Your task to perform on an android device: toggle javascript in the chrome app Image 0: 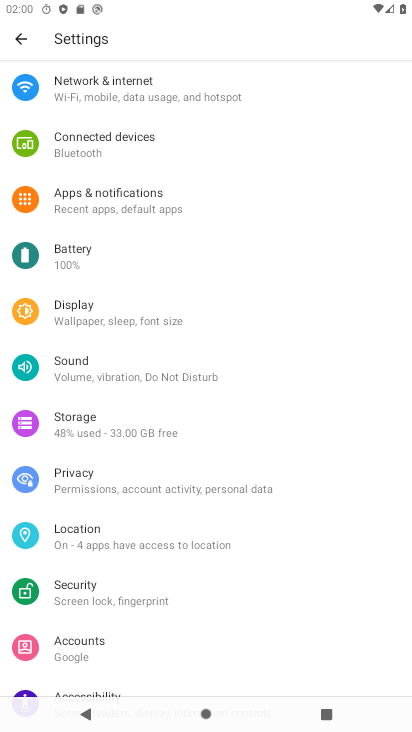
Step 0: press home button
Your task to perform on an android device: toggle javascript in the chrome app Image 1: 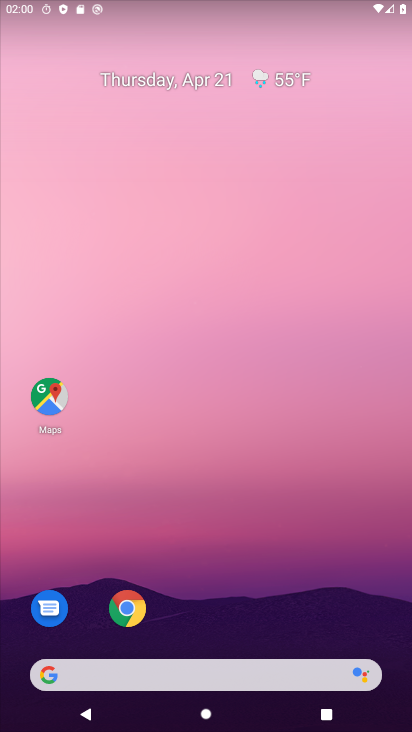
Step 1: click (133, 601)
Your task to perform on an android device: toggle javascript in the chrome app Image 2: 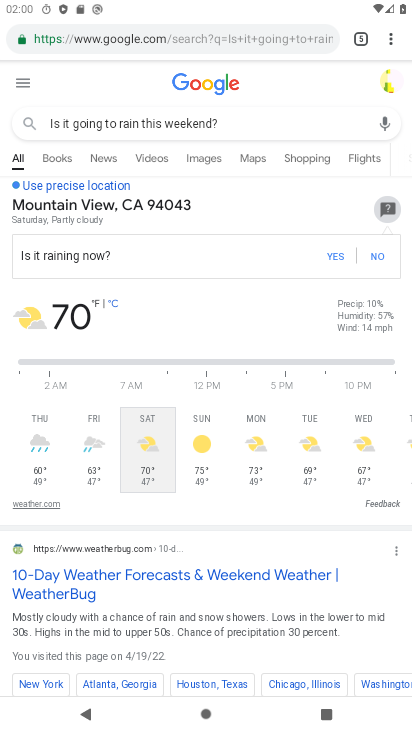
Step 2: drag from (390, 40) to (256, 486)
Your task to perform on an android device: toggle javascript in the chrome app Image 3: 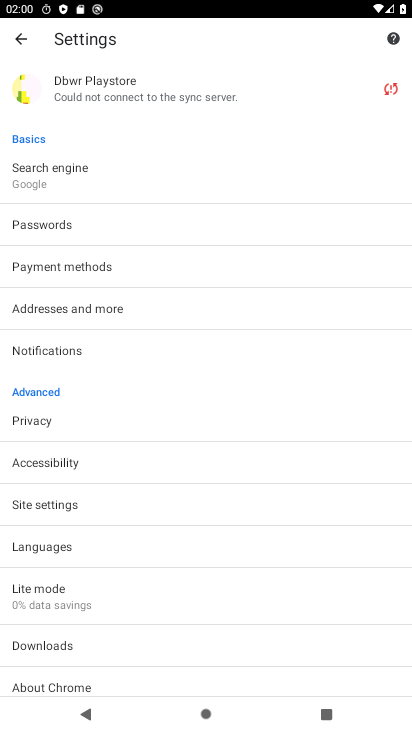
Step 3: click (35, 503)
Your task to perform on an android device: toggle javascript in the chrome app Image 4: 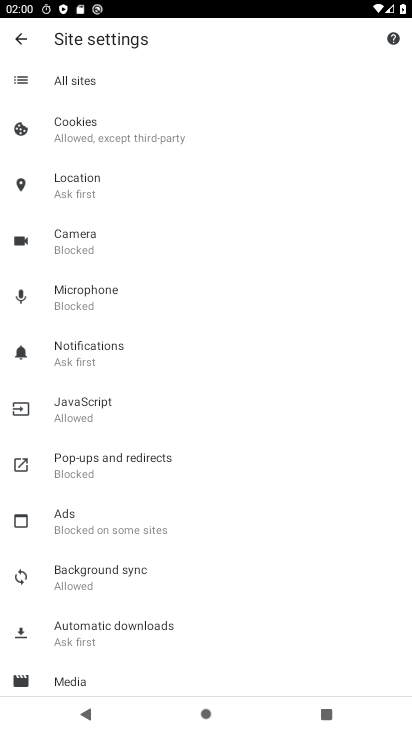
Step 4: click (86, 404)
Your task to perform on an android device: toggle javascript in the chrome app Image 5: 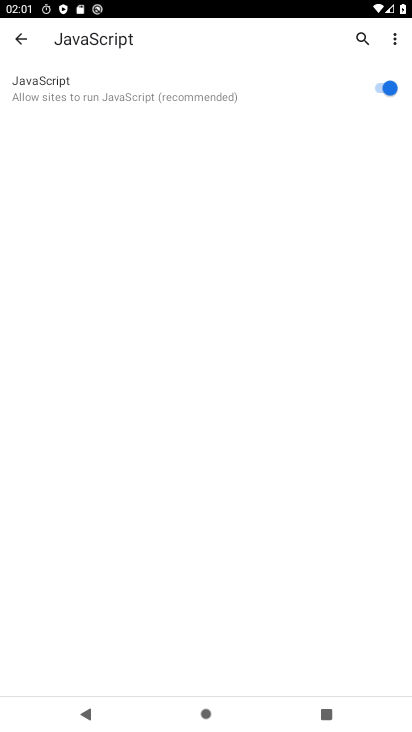
Step 5: click (388, 91)
Your task to perform on an android device: toggle javascript in the chrome app Image 6: 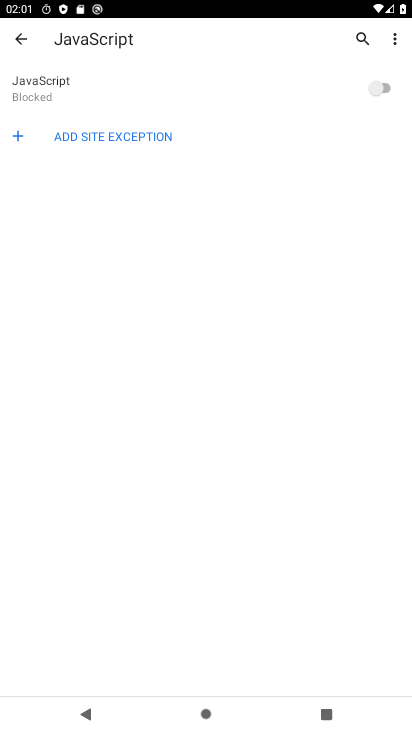
Step 6: task complete